Your task to perform on an android device: see tabs open on other devices in the chrome app Image 0: 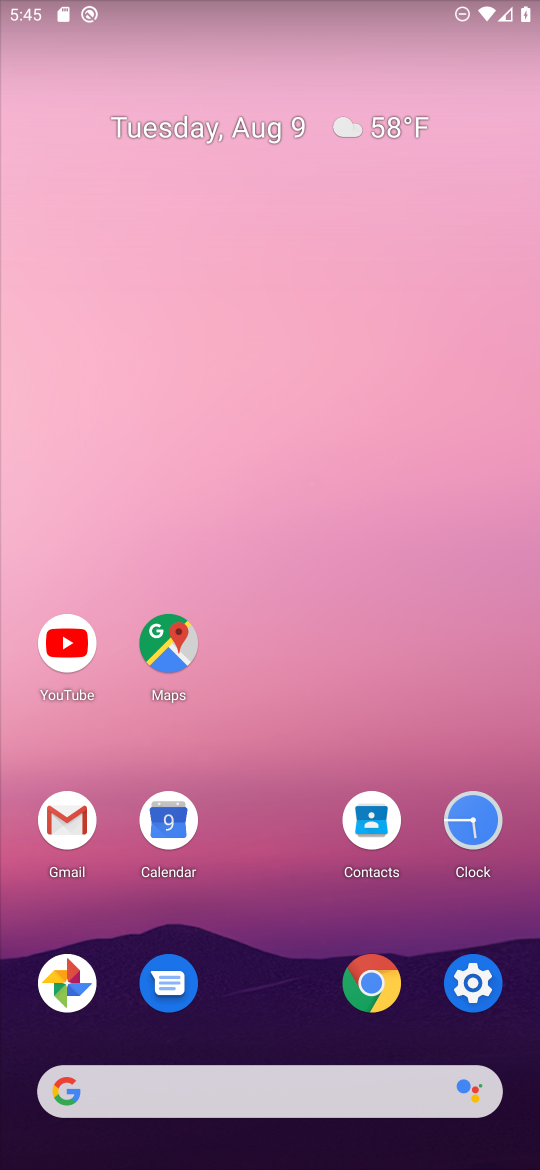
Step 0: click (366, 983)
Your task to perform on an android device: see tabs open on other devices in the chrome app Image 1: 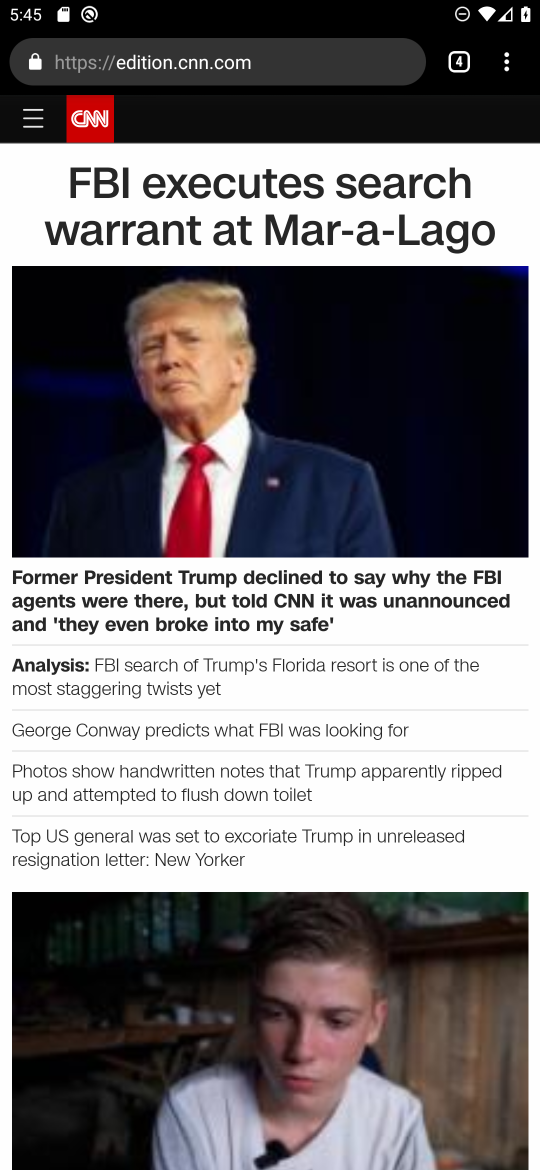
Step 1: click (504, 55)
Your task to perform on an android device: see tabs open on other devices in the chrome app Image 2: 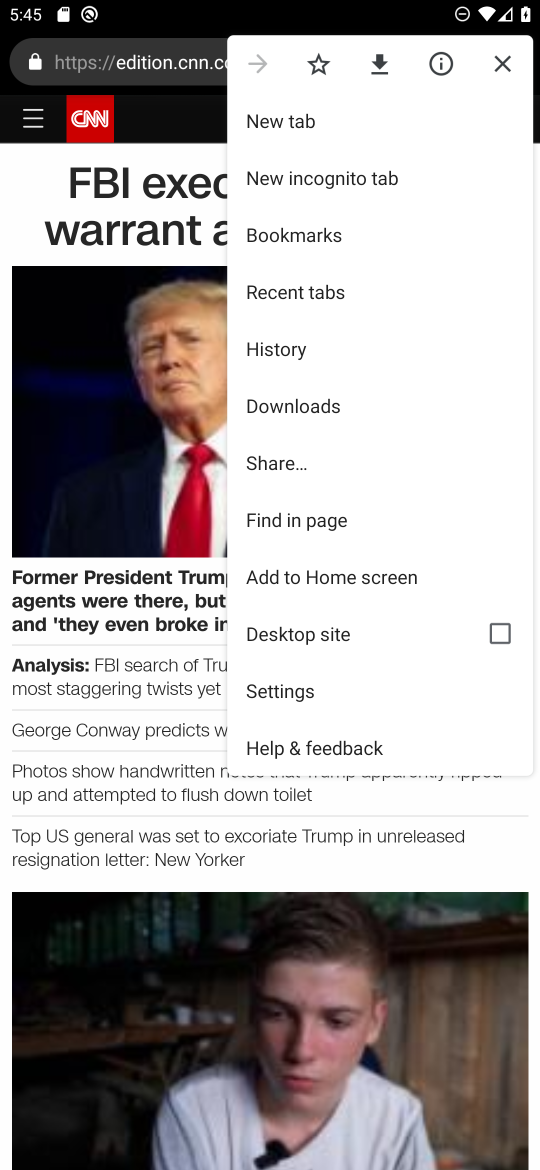
Step 2: click (291, 286)
Your task to perform on an android device: see tabs open on other devices in the chrome app Image 3: 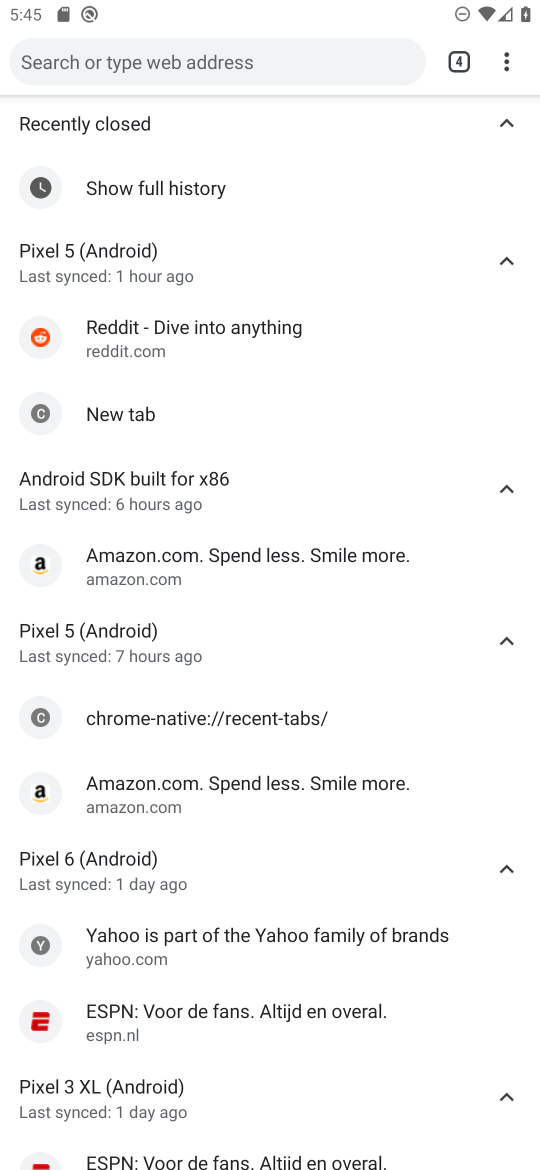
Step 3: task complete